Your task to perform on an android device: Do I have any events today? Image 0: 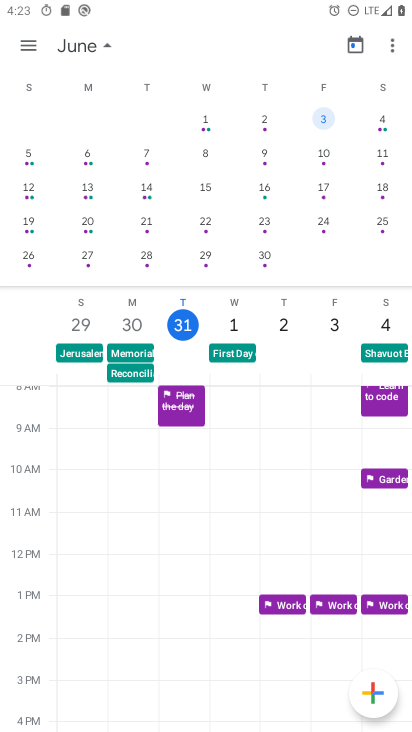
Step 0: press home button
Your task to perform on an android device: Do I have any events today? Image 1: 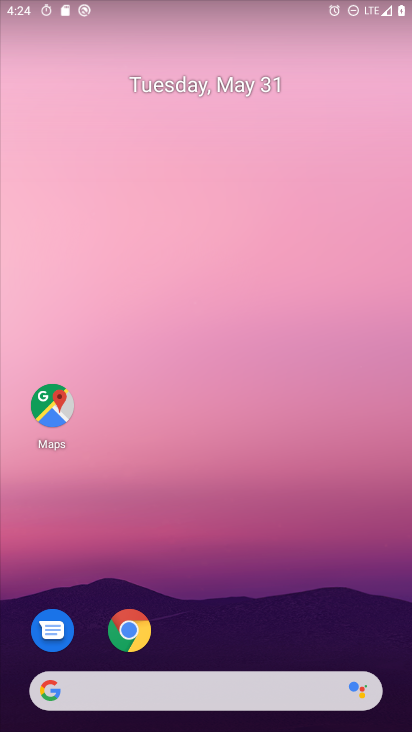
Step 1: drag from (260, 684) to (255, 0)
Your task to perform on an android device: Do I have any events today? Image 2: 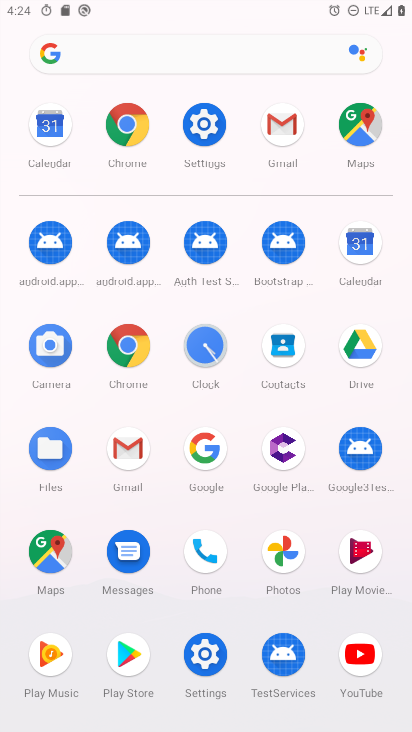
Step 2: click (355, 255)
Your task to perform on an android device: Do I have any events today? Image 3: 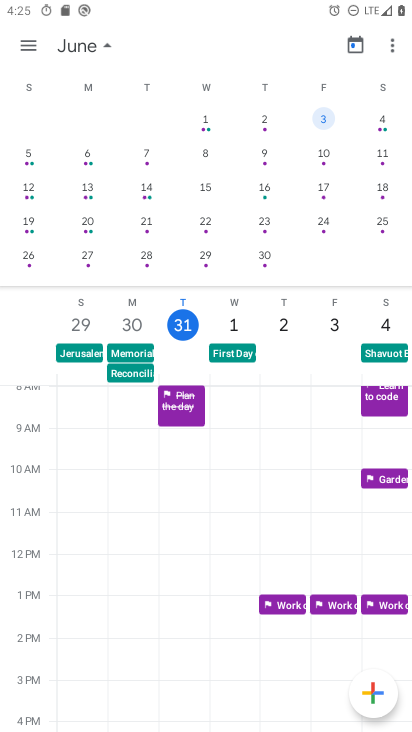
Step 3: task complete